Your task to perform on an android device: turn off location Image 0: 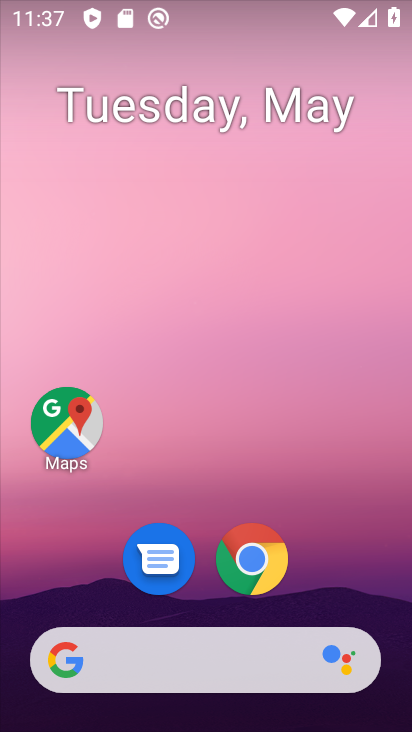
Step 0: click (322, 571)
Your task to perform on an android device: turn off location Image 1: 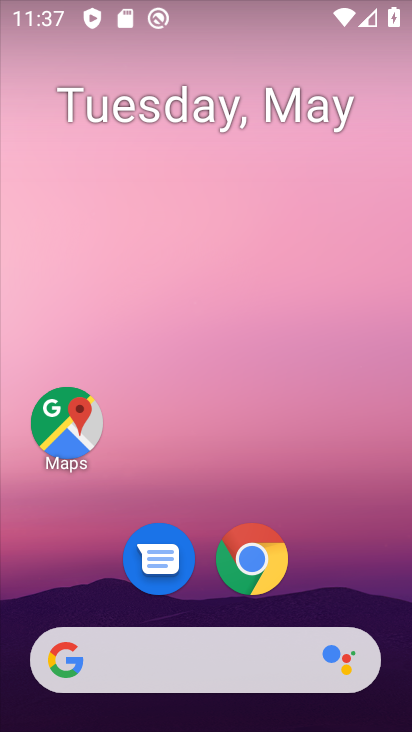
Step 1: drag from (368, 566) to (334, 110)
Your task to perform on an android device: turn off location Image 2: 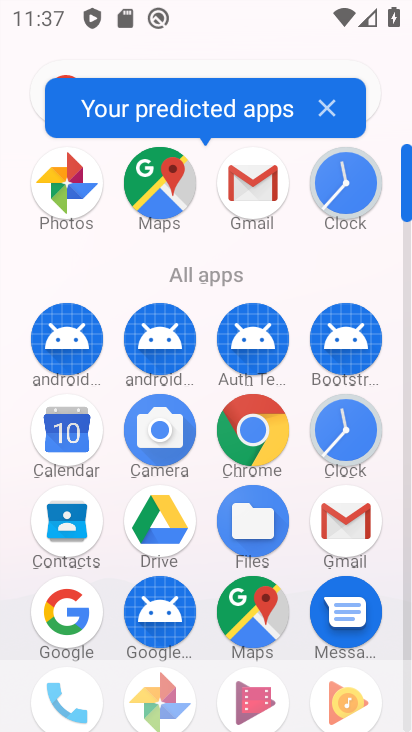
Step 2: click (410, 647)
Your task to perform on an android device: turn off location Image 3: 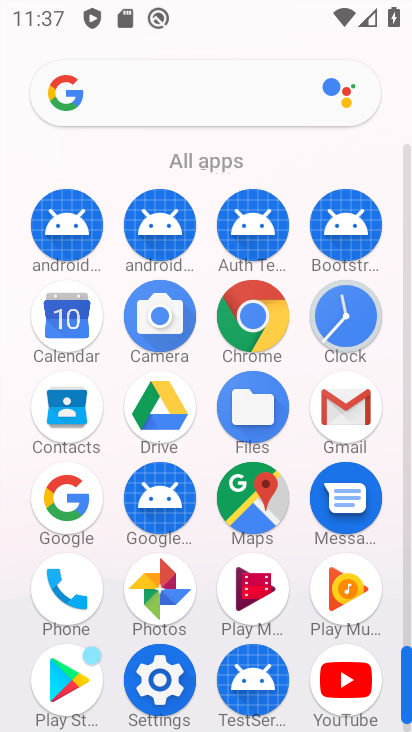
Step 3: click (156, 664)
Your task to perform on an android device: turn off location Image 4: 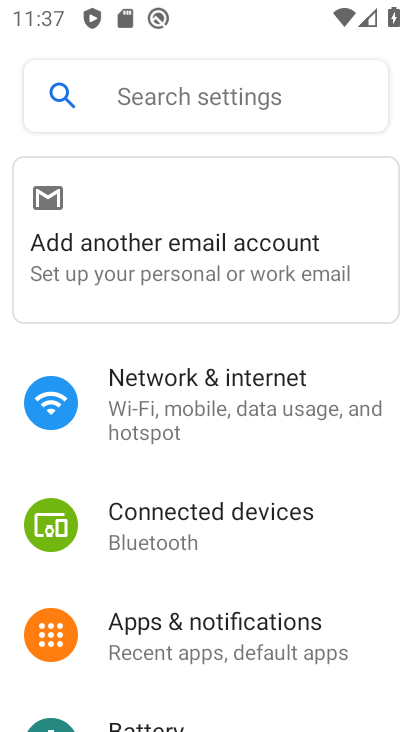
Step 4: drag from (196, 624) to (279, 177)
Your task to perform on an android device: turn off location Image 5: 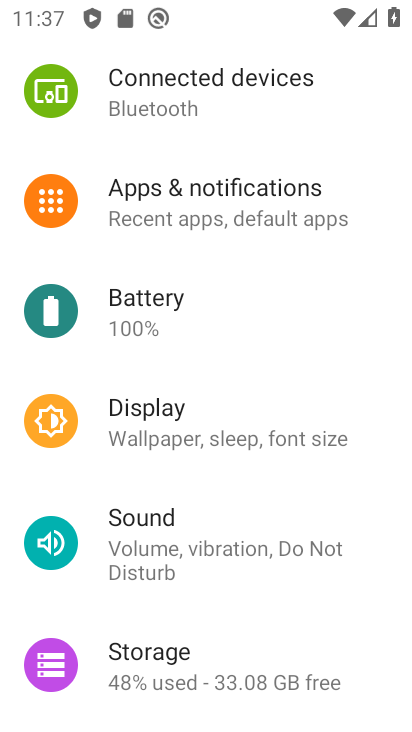
Step 5: drag from (176, 566) to (229, 297)
Your task to perform on an android device: turn off location Image 6: 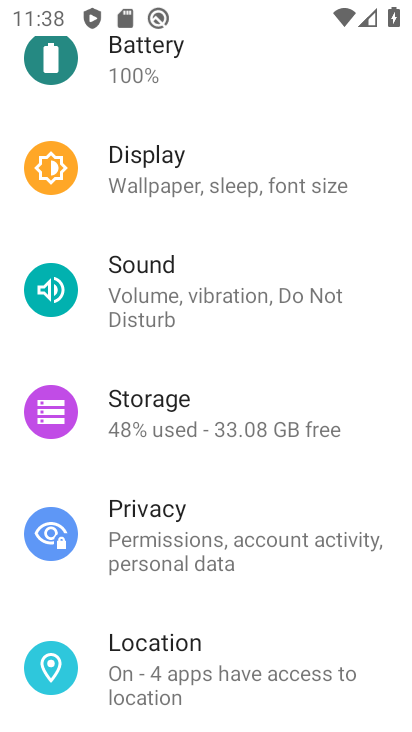
Step 6: click (212, 697)
Your task to perform on an android device: turn off location Image 7: 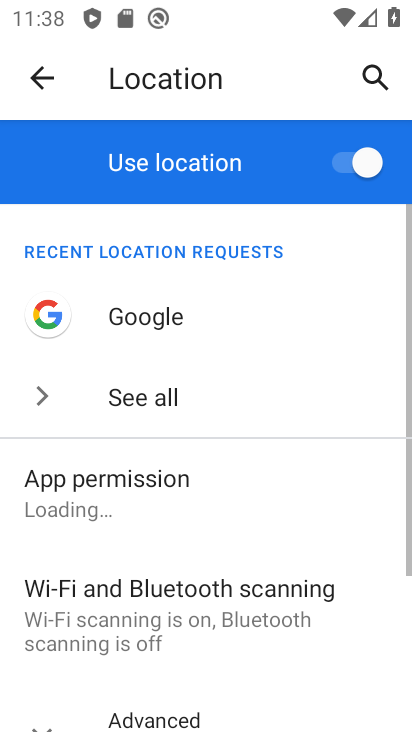
Step 7: click (354, 184)
Your task to perform on an android device: turn off location Image 8: 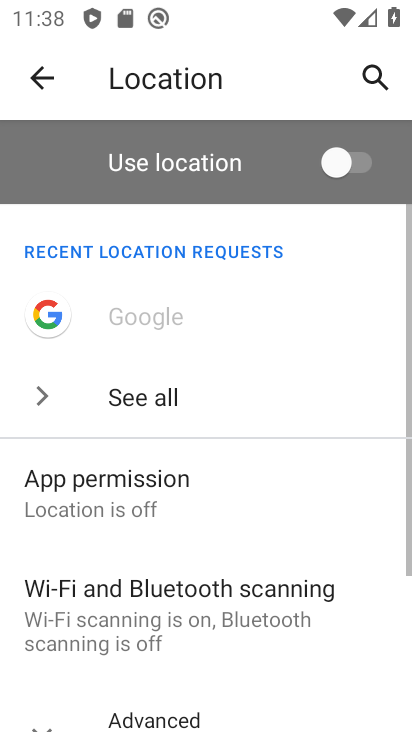
Step 8: task complete